Your task to perform on an android device: Clear all items from cart on costco.com. Add "jbl flip 4" to the cart on costco.com, then select checkout. Image 0: 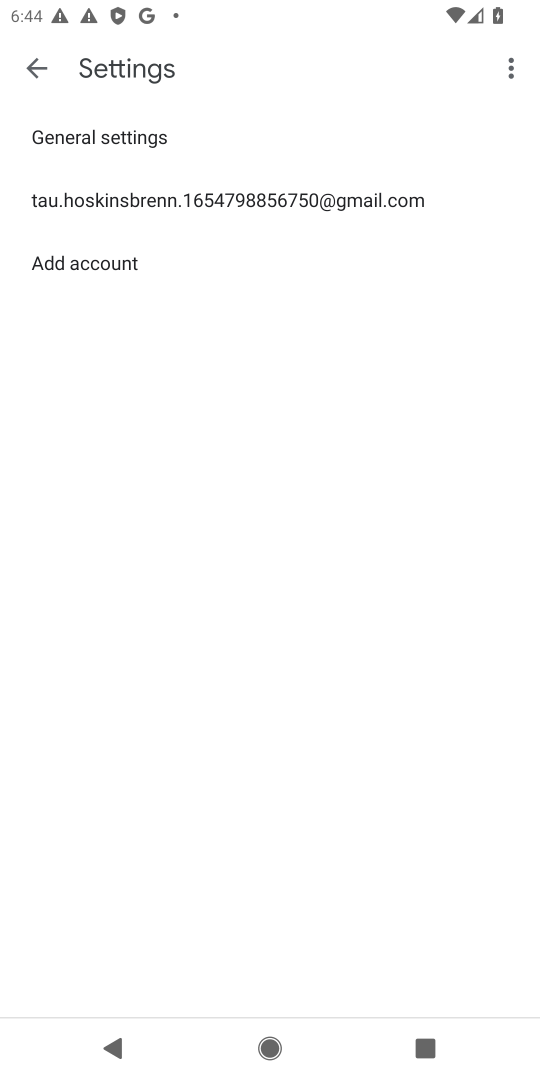
Step 0: press home button
Your task to perform on an android device: Clear all items from cart on costco.com. Add "jbl flip 4" to the cart on costco.com, then select checkout. Image 1: 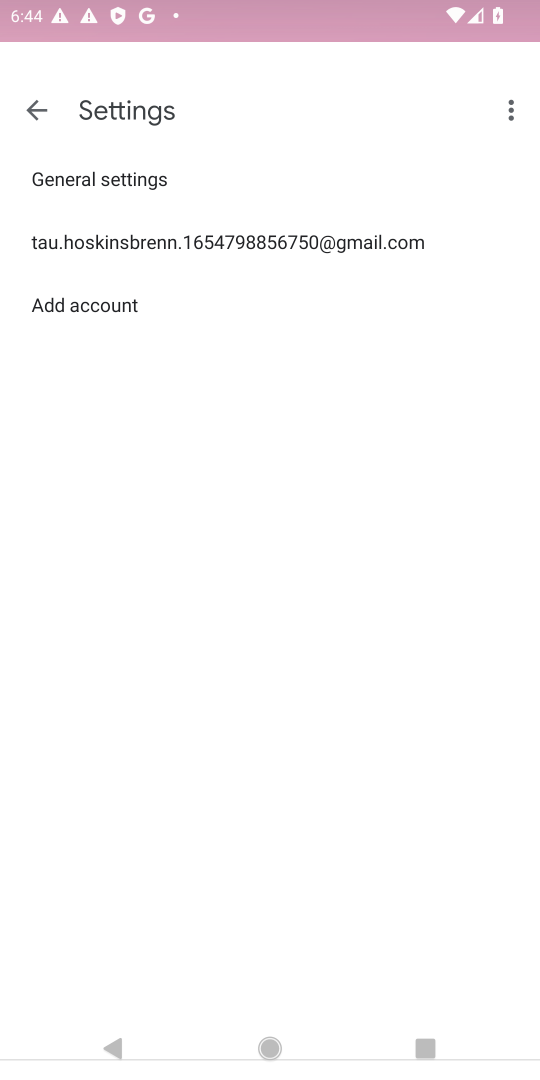
Step 1: press home button
Your task to perform on an android device: Clear all items from cart on costco.com. Add "jbl flip 4" to the cart on costco.com, then select checkout. Image 2: 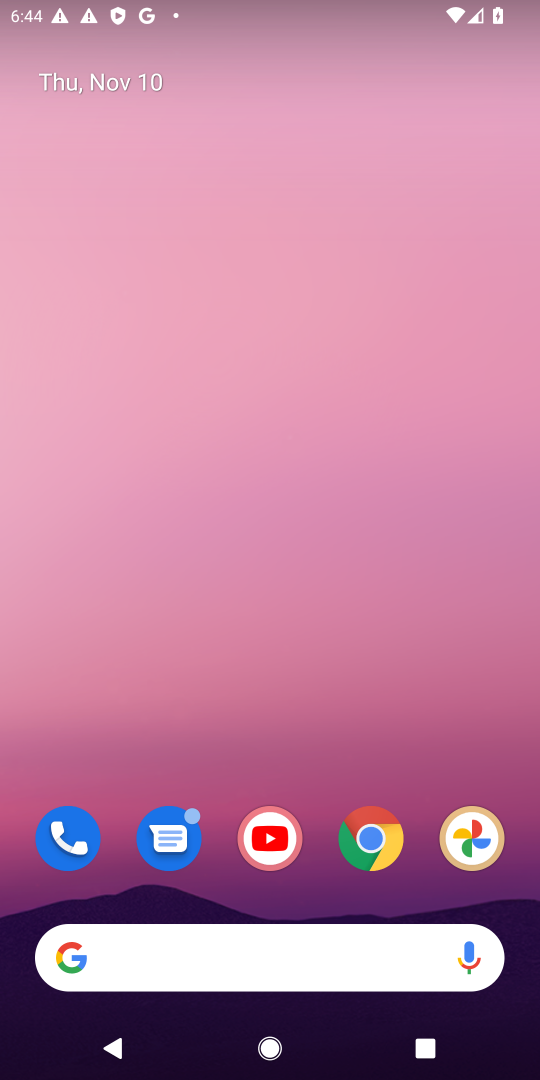
Step 2: drag from (315, 889) to (254, 49)
Your task to perform on an android device: Clear all items from cart on costco.com. Add "jbl flip 4" to the cart on costco.com, then select checkout. Image 3: 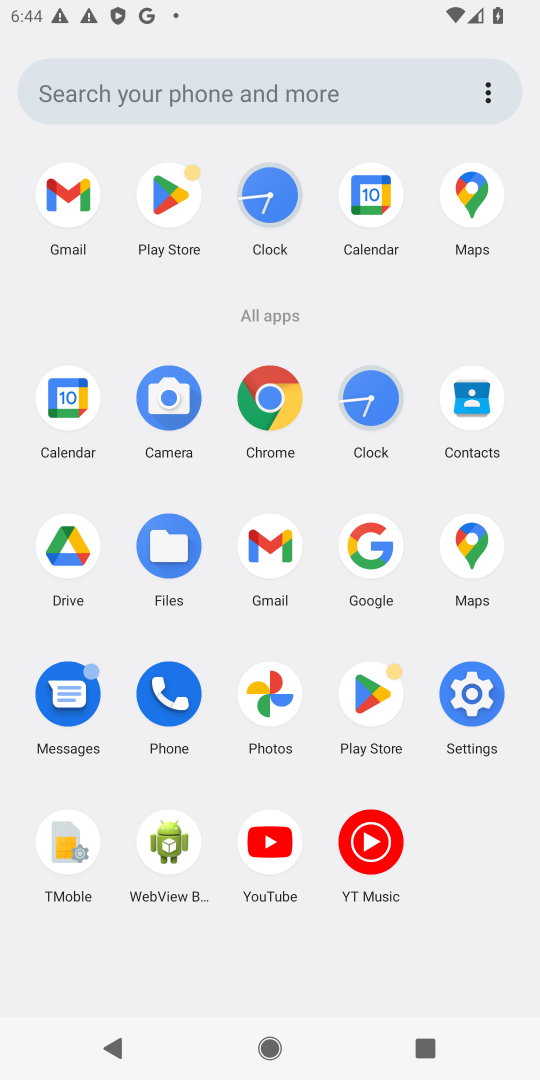
Step 3: click (266, 390)
Your task to perform on an android device: Clear all items from cart on costco.com. Add "jbl flip 4" to the cart on costco.com, then select checkout. Image 4: 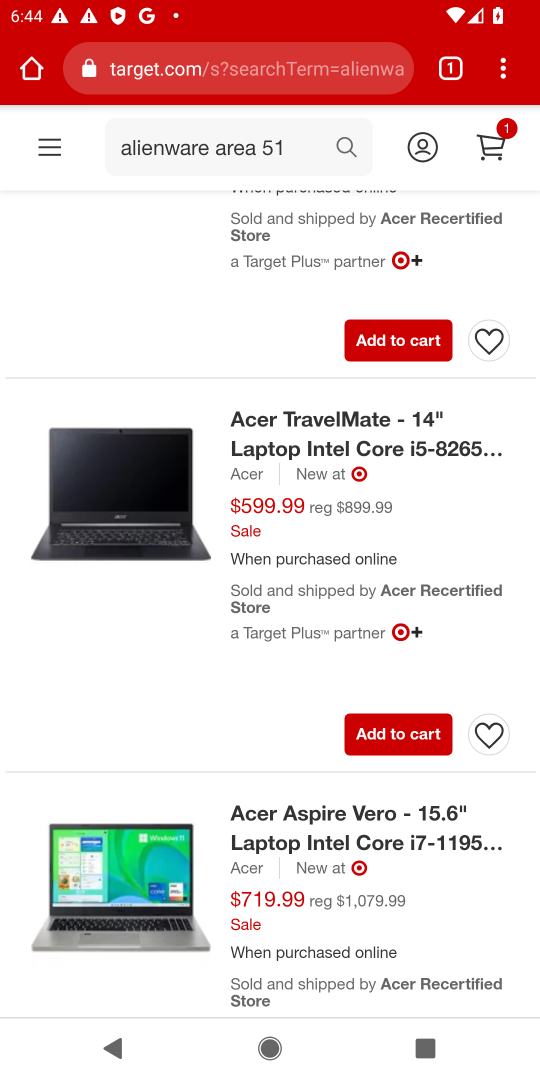
Step 4: click (264, 72)
Your task to perform on an android device: Clear all items from cart on costco.com. Add "jbl flip 4" to the cart on costco.com, then select checkout. Image 5: 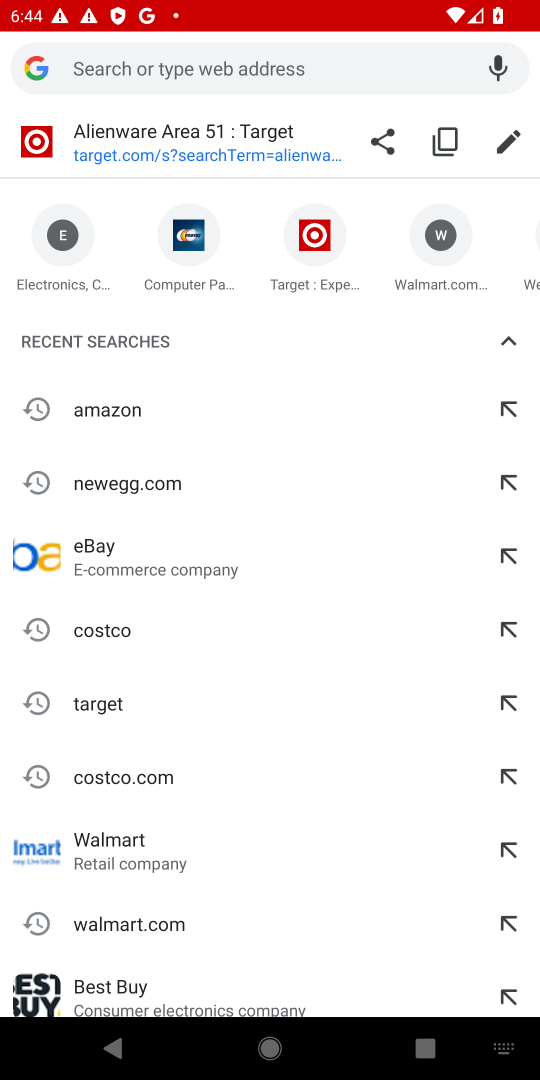
Step 5: type "costco.com"
Your task to perform on an android device: Clear all items from cart on costco.com. Add "jbl flip 4" to the cart on costco.com, then select checkout. Image 6: 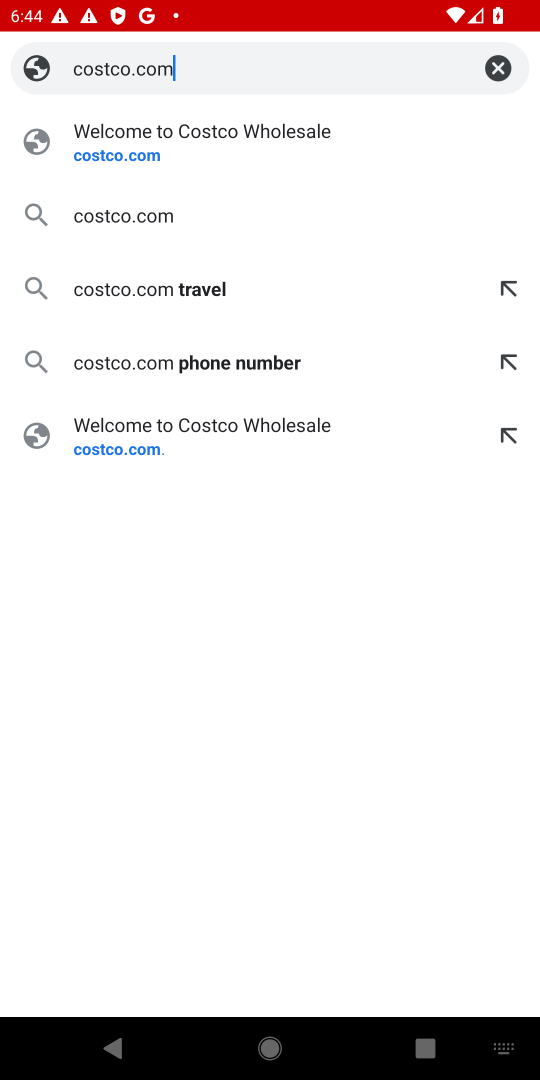
Step 6: press enter
Your task to perform on an android device: Clear all items from cart on costco.com. Add "jbl flip 4" to the cart on costco.com, then select checkout. Image 7: 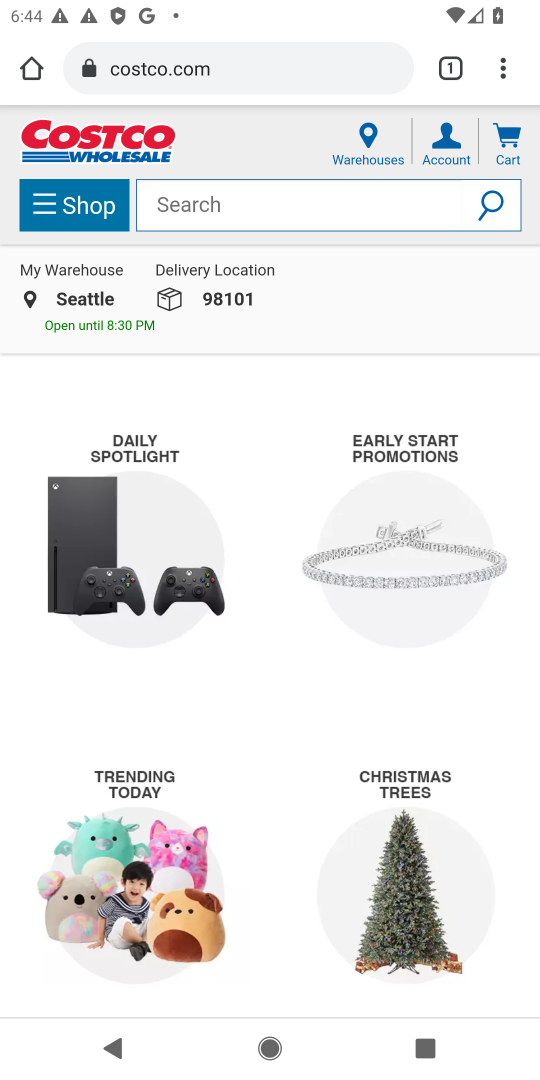
Step 7: click (518, 139)
Your task to perform on an android device: Clear all items from cart on costco.com. Add "jbl flip 4" to the cart on costco.com, then select checkout. Image 8: 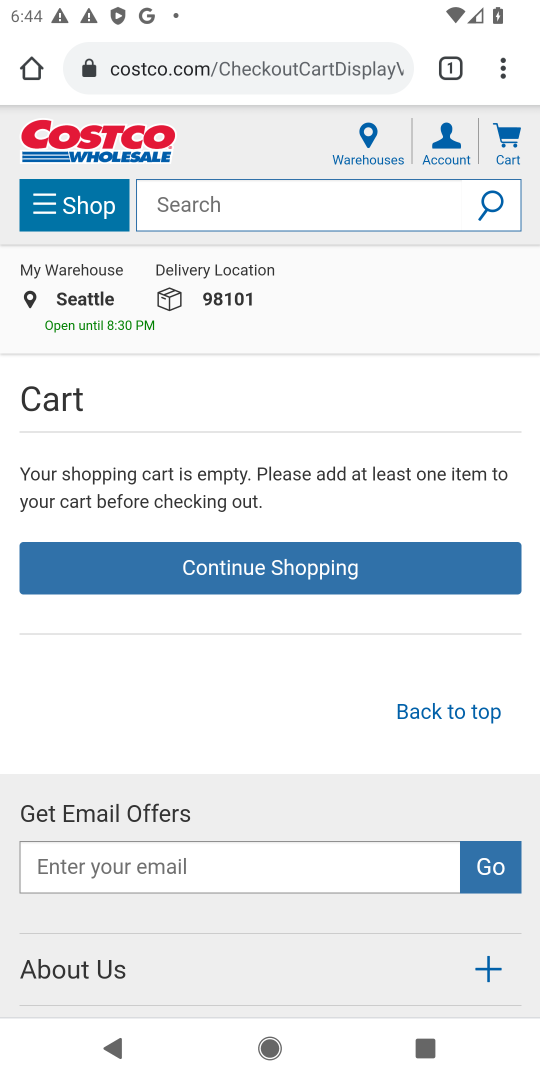
Step 8: click (243, 214)
Your task to perform on an android device: Clear all items from cart on costco.com. Add "jbl flip 4" to the cart on costco.com, then select checkout. Image 9: 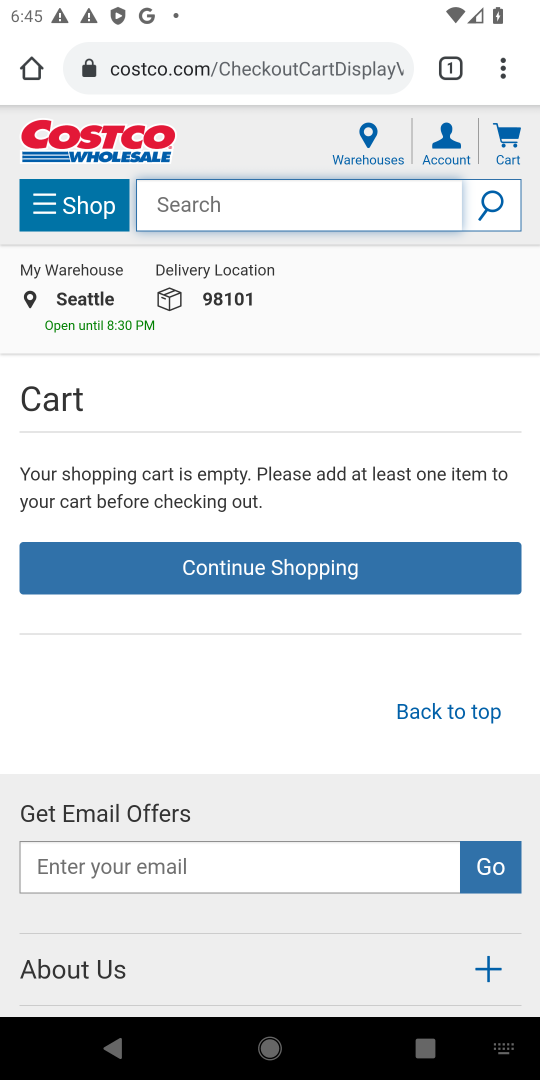
Step 9: type "jbl flip 4"
Your task to perform on an android device: Clear all items from cart on costco.com. Add "jbl flip 4" to the cart on costco.com, then select checkout. Image 10: 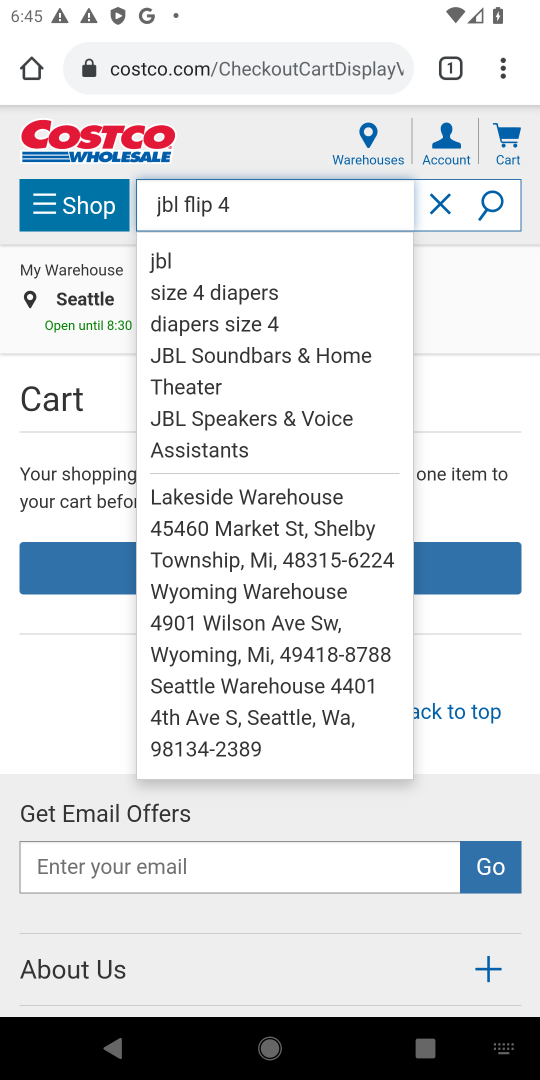
Step 10: press enter
Your task to perform on an android device: Clear all items from cart on costco.com. Add "jbl flip 4" to the cart on costco.com, then select checkout. Image 11: 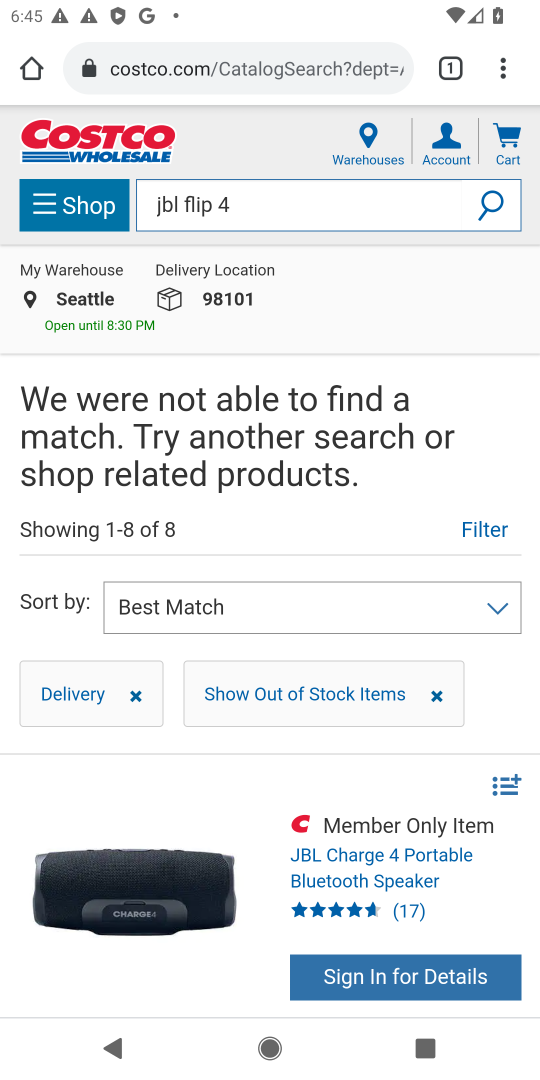
Step 11: task complete